Your task to perform on an android device: When is my next appointment? Image 0: 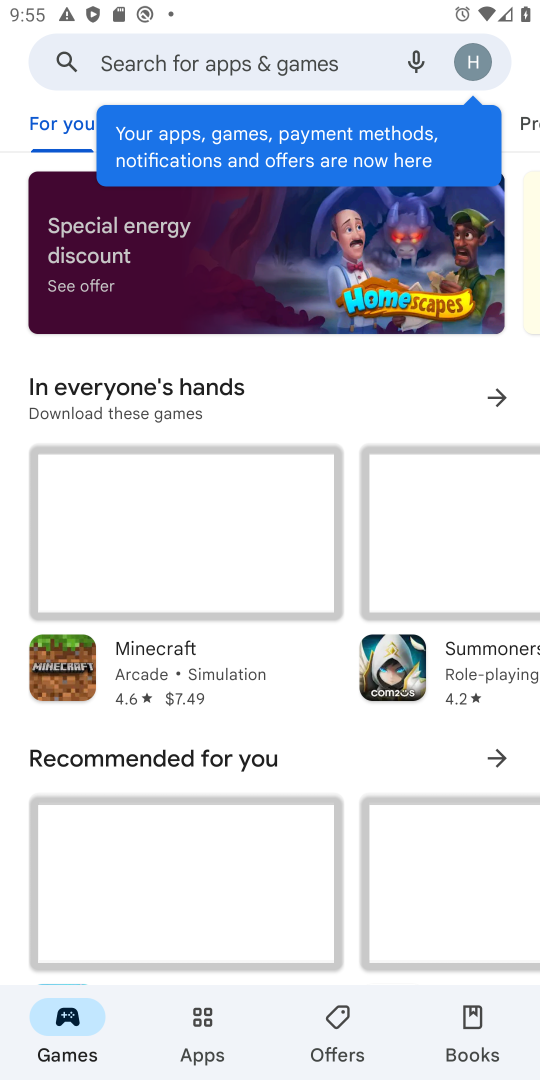
Step 0: press home button
Your task to perform on an android device: When is my next appointment? Image 1: 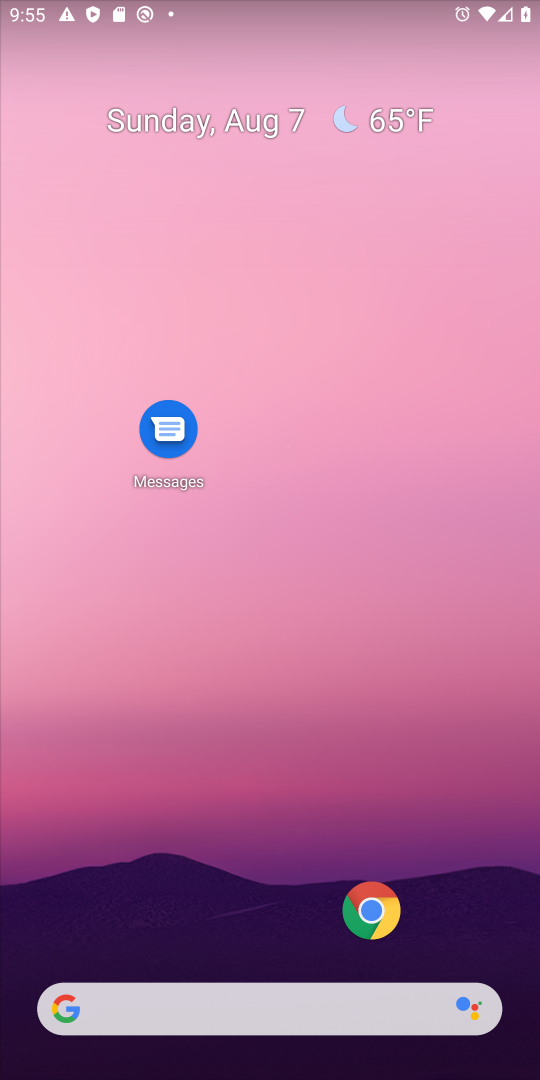
Step 1: drag from (238, 957) to (267, 439)
Your task to perform on an android device: When is my next appointment? Image 2: 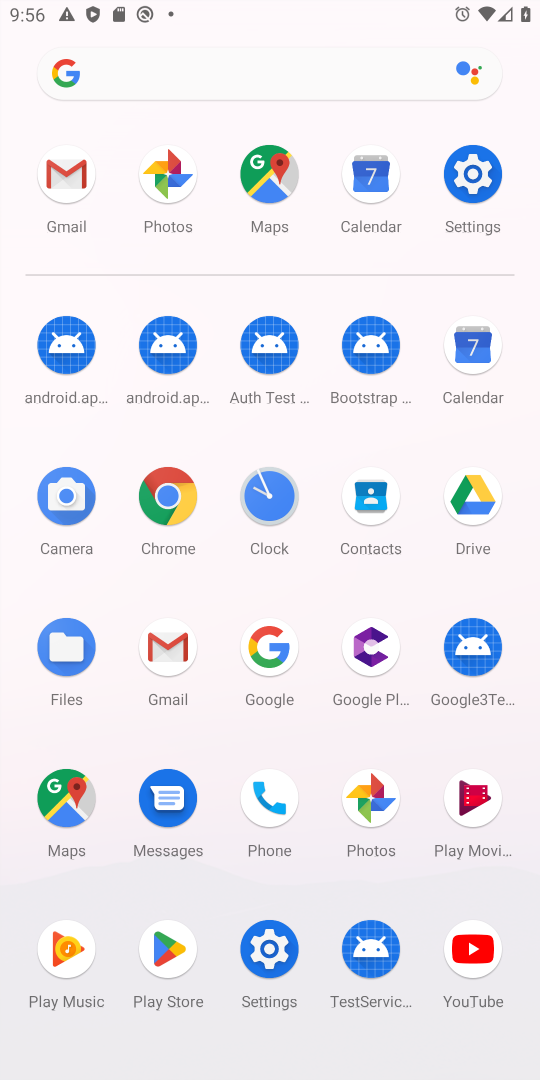
Step 2: click (471, 357)
Your task to perform on an android device: When is my next appointment? Image 3: 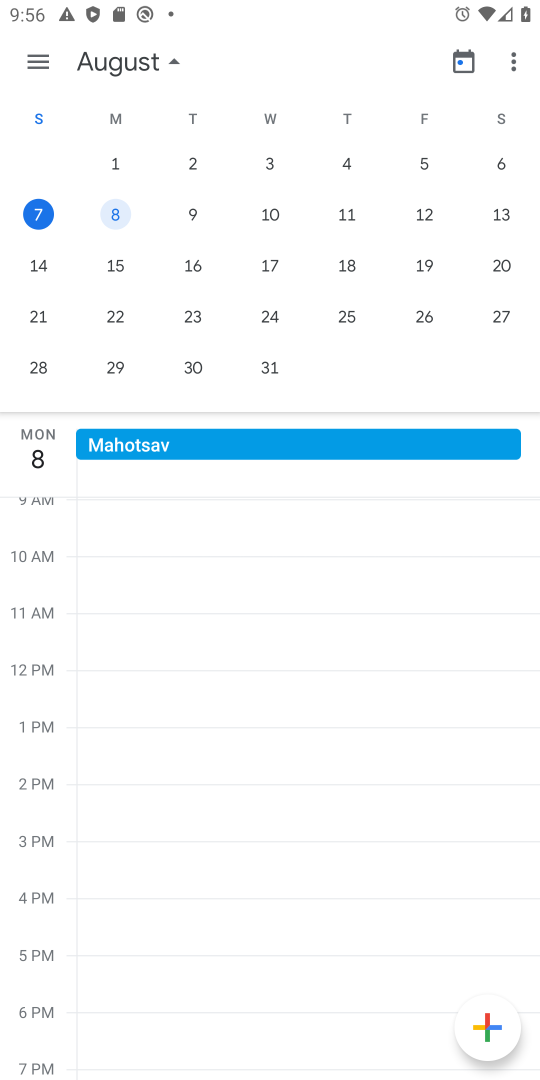
Step 3: task complete